Your task to perform on an android device: Check the weather Image 0: 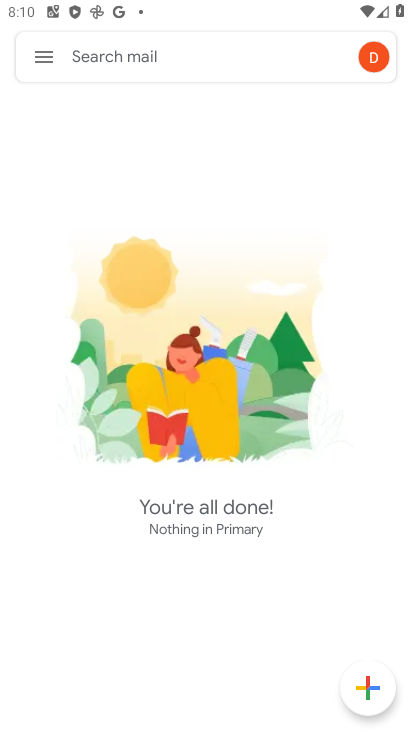
Step 0: press home button
Your task to perform on an android device: Check the weather Image 1: 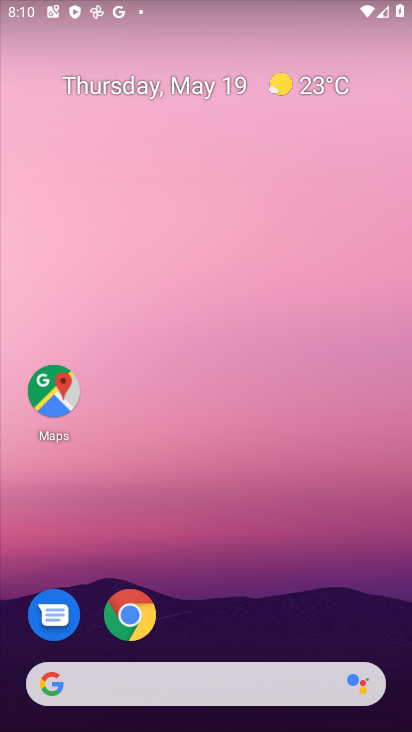
Step 1: drag from (296, 629) to (208, 45)
Your task to perform on an android device: Check the weather Image 2: 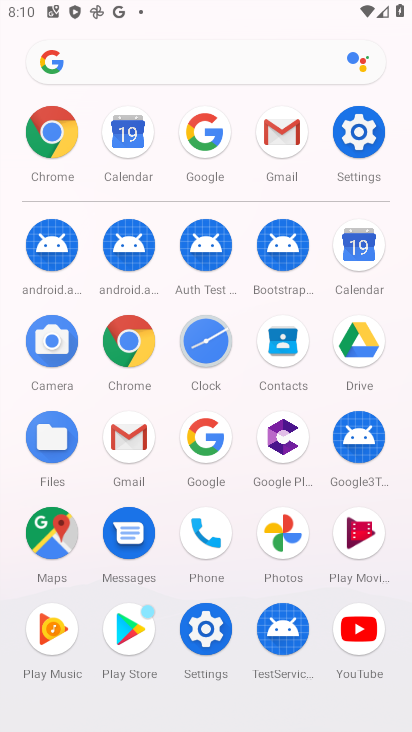
Step 2: click (217, 129)
Your task to perform on an android device: Check the weather Image 3: 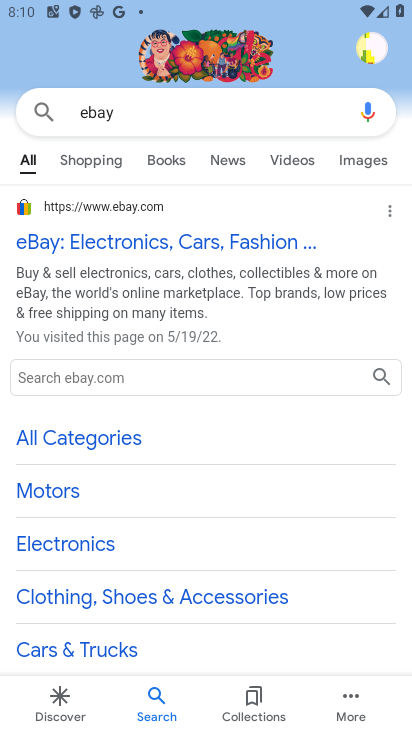
Step 3: press back button
Your task to perform on an android device: Check the weather Image 4: 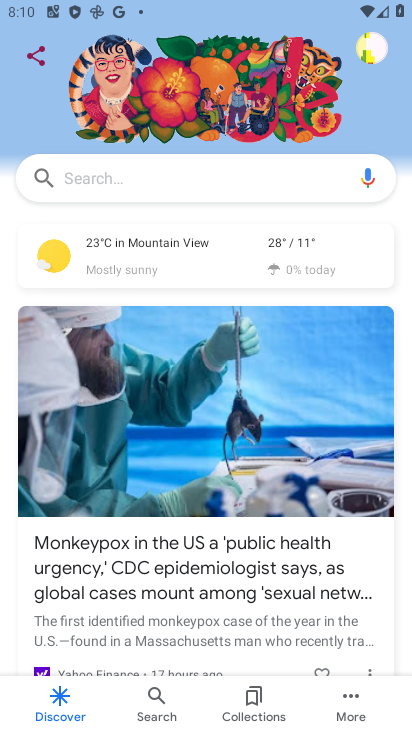
Step 4: click (230, 168)
Your task to perform on an android device: Check the weather Image 5: 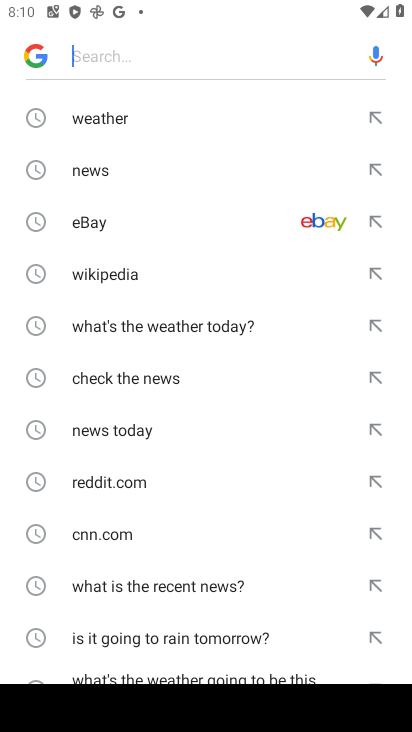
Step 5: click (136, 113)
Your task to perform on an android device: Check the weather Image 6: 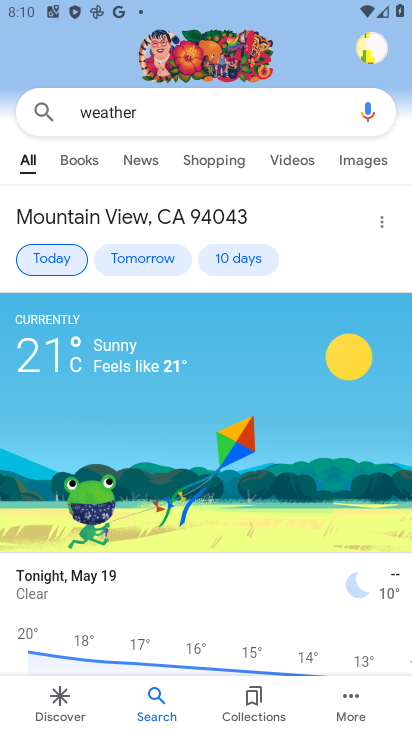
Step 6: task complete